Your task to perform on an android device: Go to Yahoo.com Image 0: 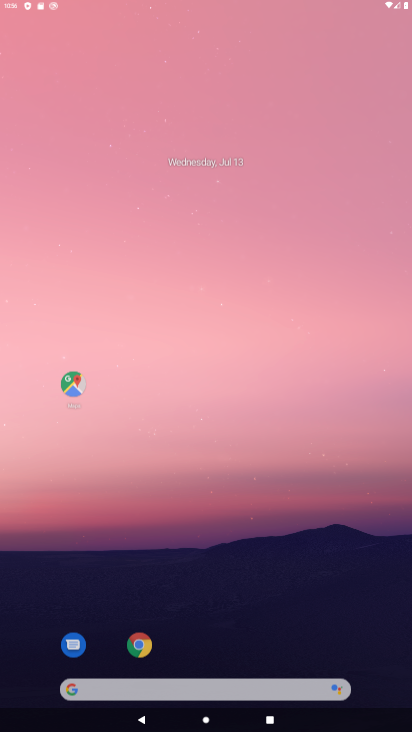
Step 0: press home button
Your task to perform on an android device: Go to Yahoo.com Image 1: 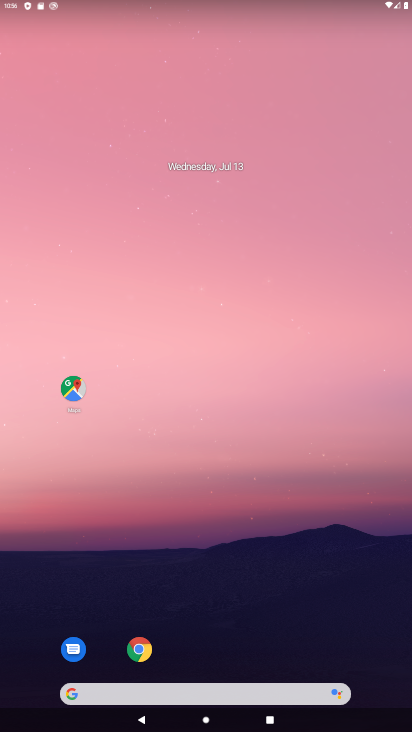
Step 1: drag from (198, 675) to (168, 65)
Your task to perform on an android device: Go to Yahoo.com Image 2: 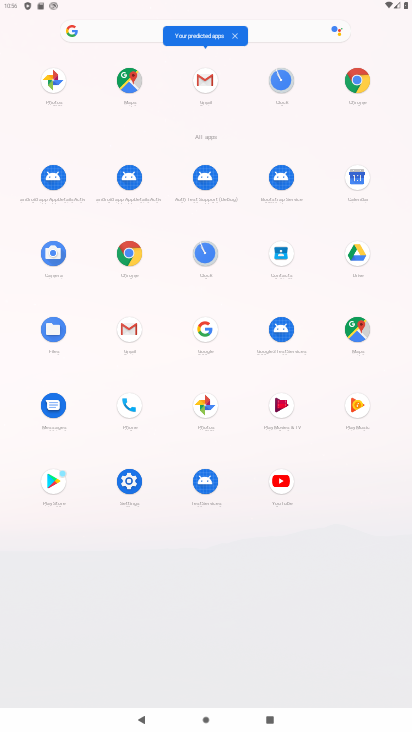
Step 2: click (130, 483)
Your task to perform on an android device: Go to Yahoo.com Image 3: 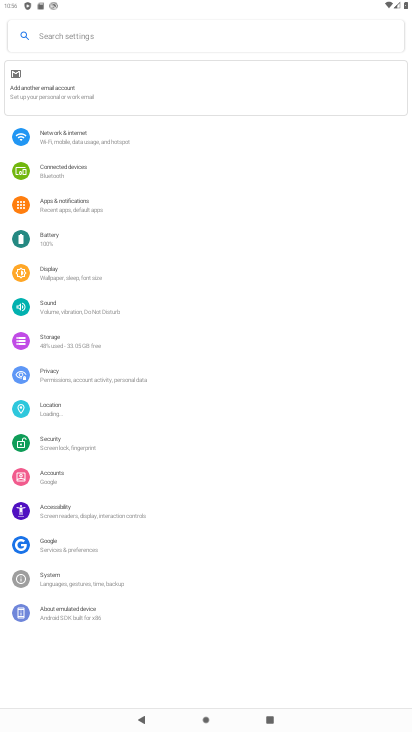
Step 3: click (64, 275)
Your task to perform on an android device: Go to Yahoo.com Image 4: 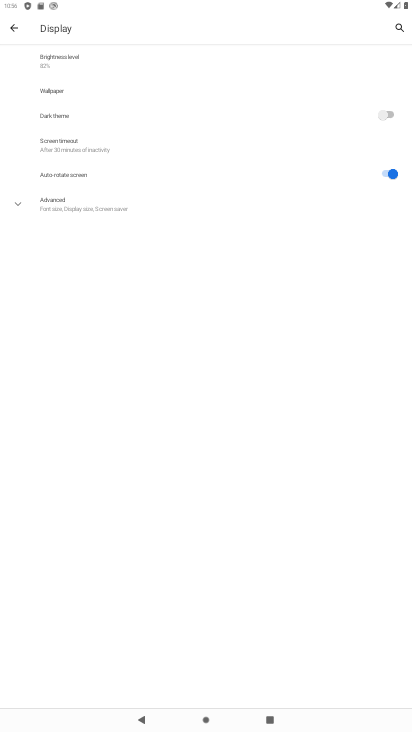
Step 4: click (78, 206)
Your task to perform on an android device: Go to Yahoo.com Image 5: 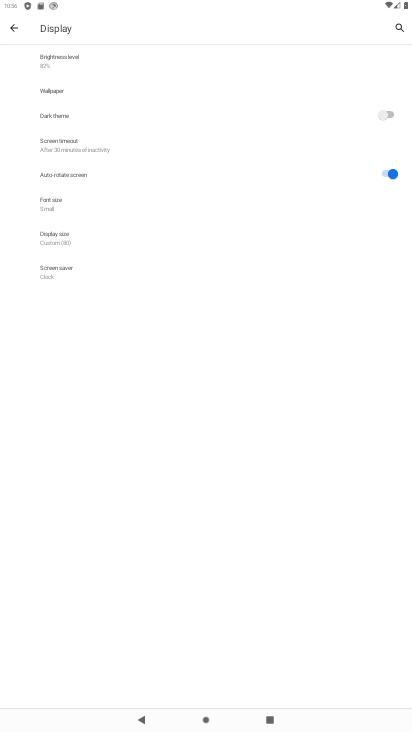
Step 5: click (62, 236)
Your task to perform on an android device: Go to Yahoo.com Image 6: 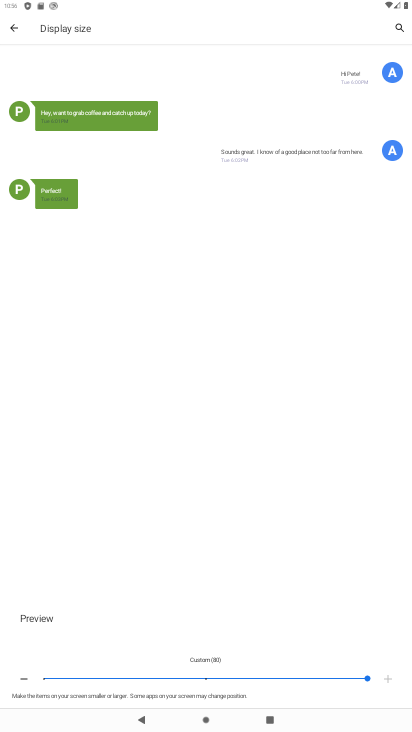
Step 6: click (203, 672)
Your task to perform on an android device: Go to Yahoo.com Image 7: 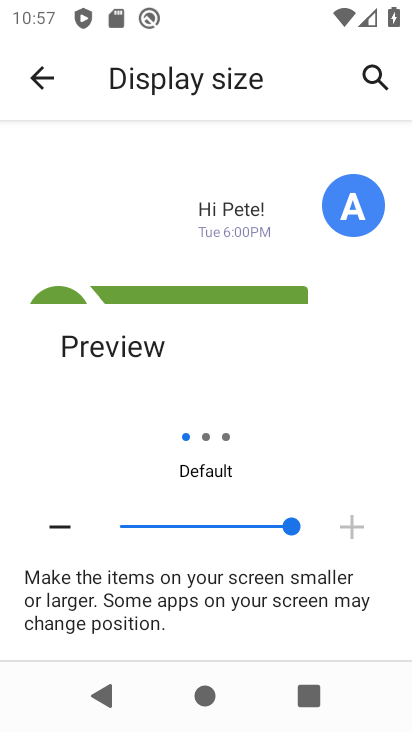
Step 7: press home button
Your task to perform on an android device: Go to Yahoo.com Image 8: 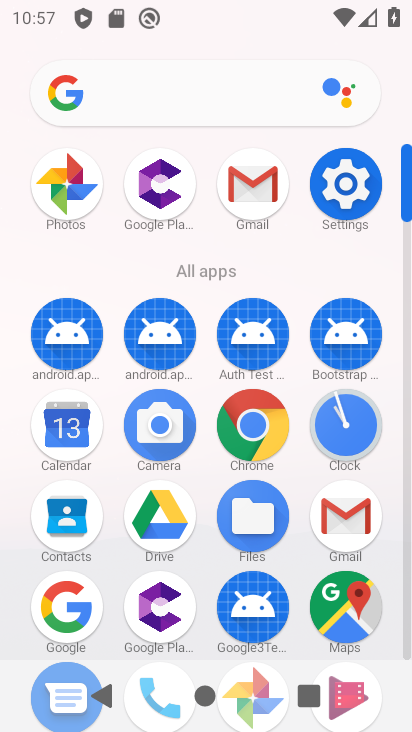
Step 8: click (273, 433)
Your task to perform on an android device: Go to Yahoo.com Image 9: 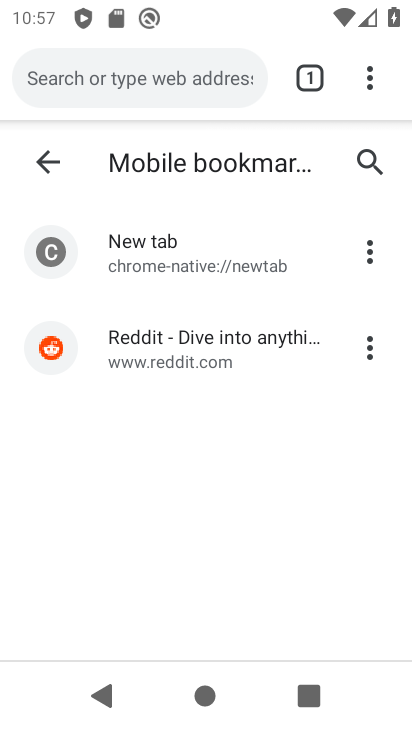
Step 9: press back button
Your task to perform on an android device: Go to Yahoo.com Image 10: 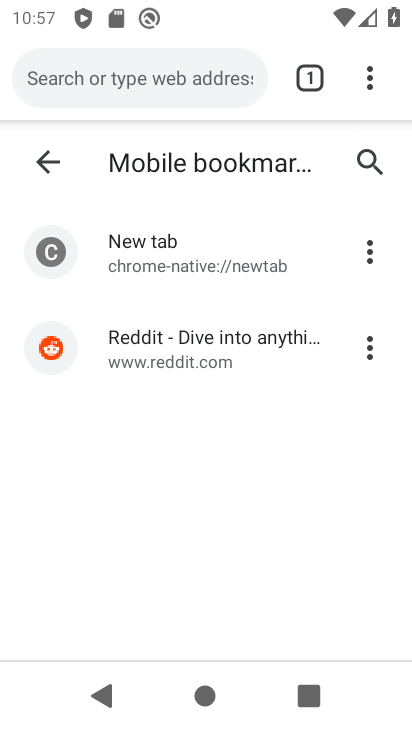
Step 10: press home button
Your task to perform on an android device: Go to Yahoo.com Image 11: 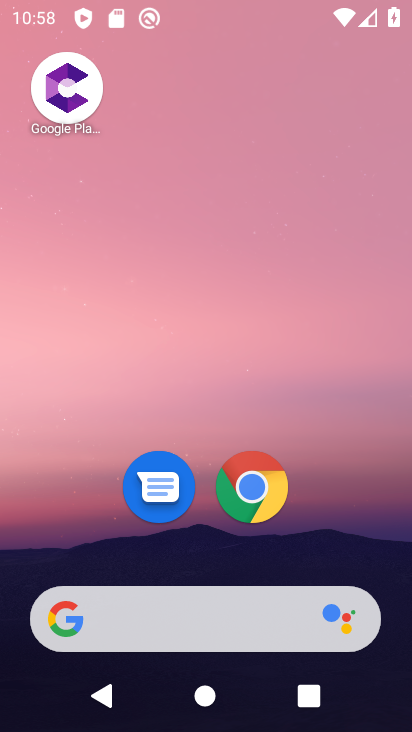
Step 11: press home button
Your task to perform on an android device: Go to Yahoo.com Image 12: 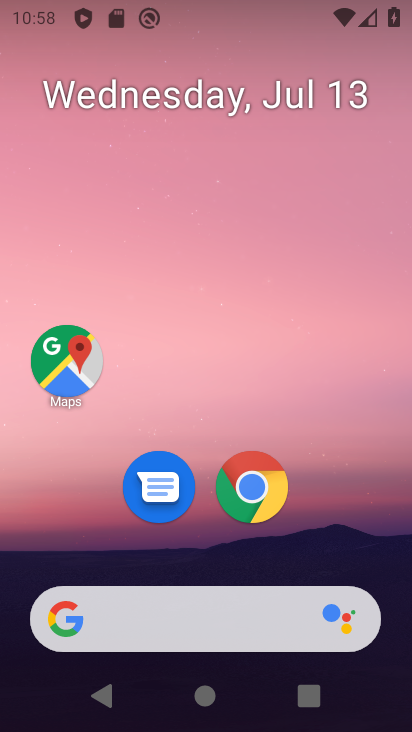
Step 12: drag from (233, 572) to (173, 3)
Your task to perform on an android device: Go to Yahoo.com Image 13: 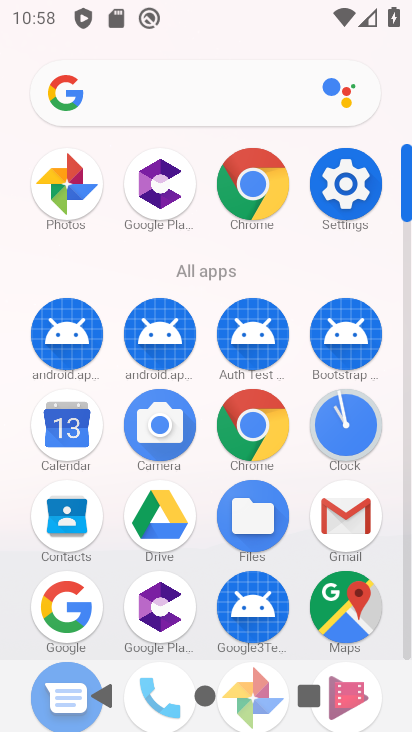
Step 13: click (254, 177)
Your task to perform on an android device: Go to Yahoo.com Image 14: 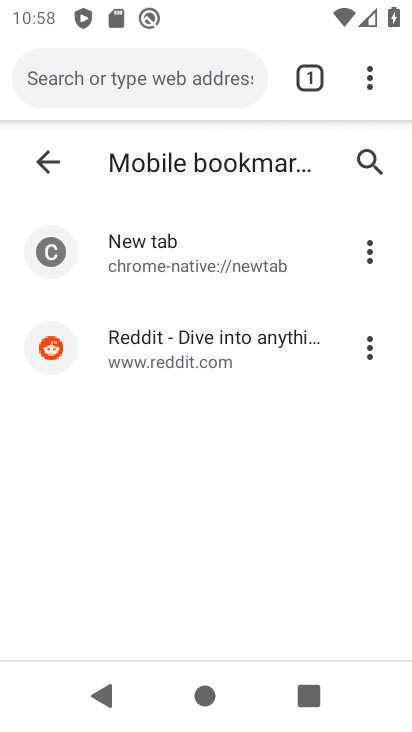
Step 14: click (297, 72)
Your task to perform on an android device: Go to Yahoo.com Image 15: 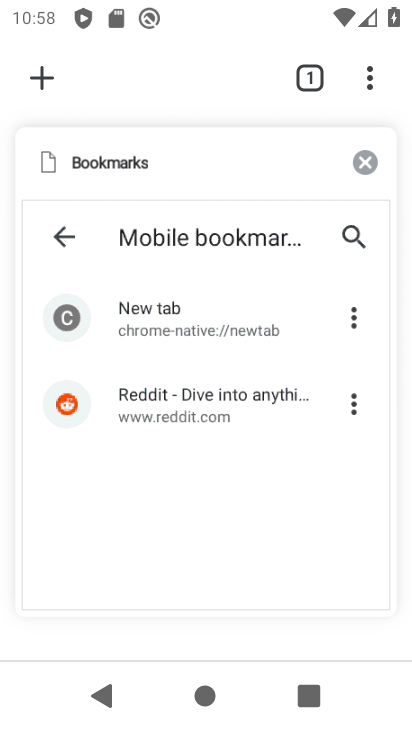
Step 15: click (38, 80)
Your task to perform on an android device: Go to Yahoo.com Image 16: 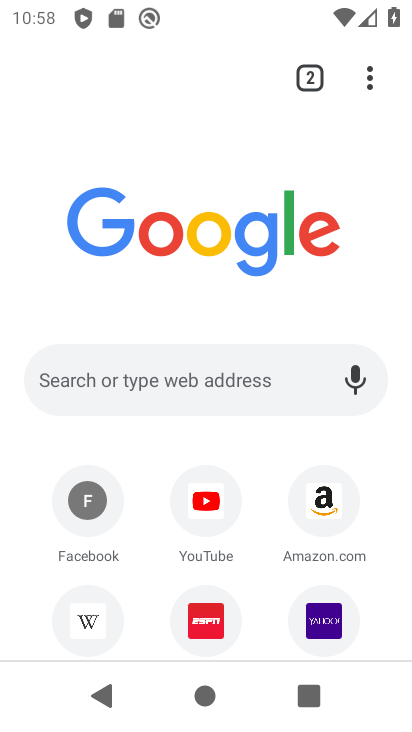
Step 16: click (324, 605)
Your task to perform on an android device: Go to Yahoo.com Image 17: 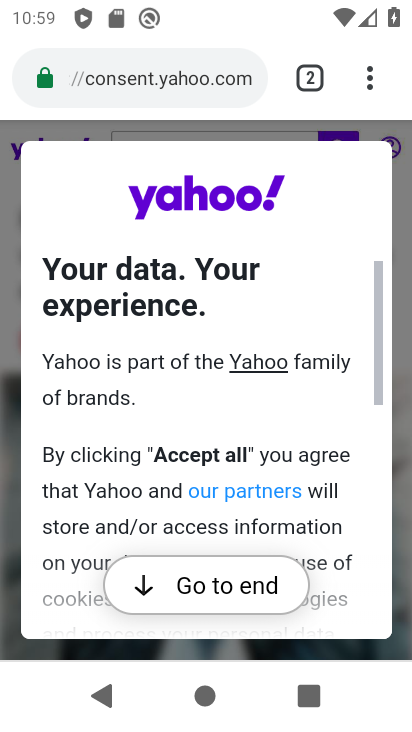
Step 17: task complete